Your task to perform on an android device: turn on javascript in the chrome app Image 0: 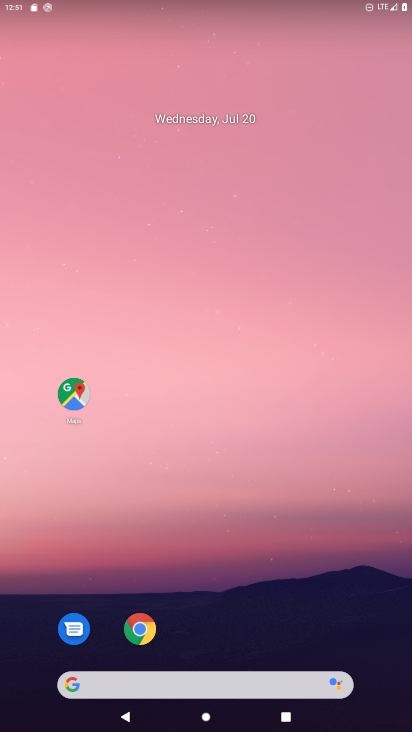
Step 0: click (143, 631)
Your task to perform on an android device: turn on javascript in the chrome app Image 1: 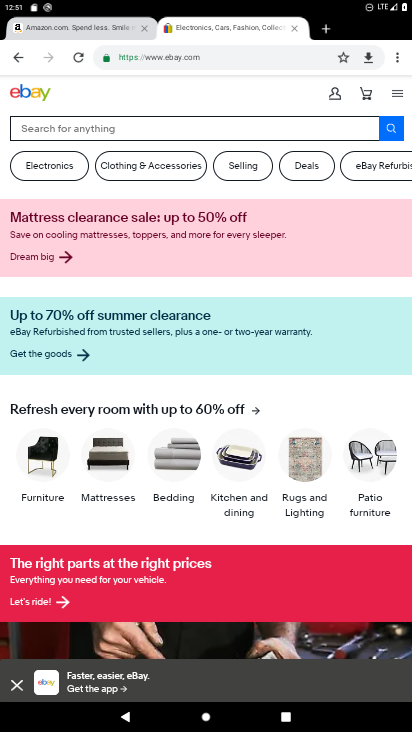
Step 1: click (399, 56)
Your task to perform on an android device: turn on javascript in the chrome app Image 2: 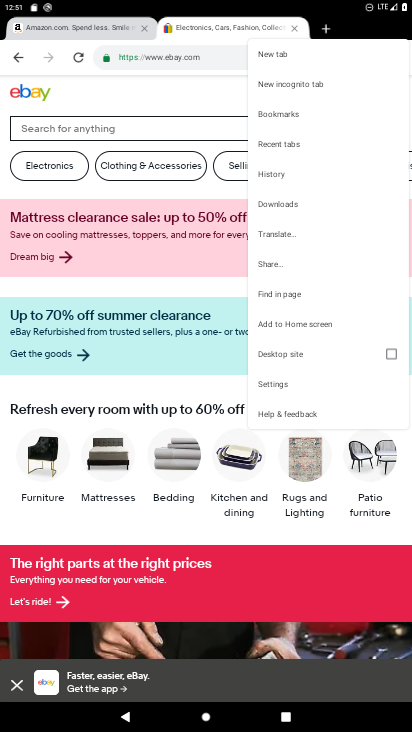
Step 2: click (277, 385)
Your task to perform on an android device: turn on javascript in the chrome app Image 3: 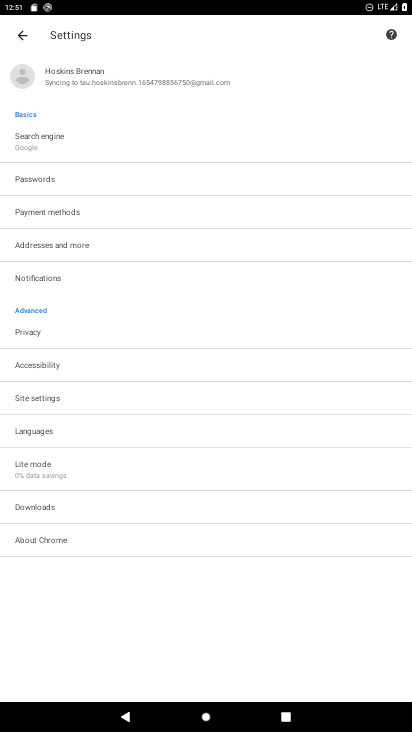
Step 3: click (43, 390)
Your task to perform on an android device: turn on javascript in the chrome app Image 4: 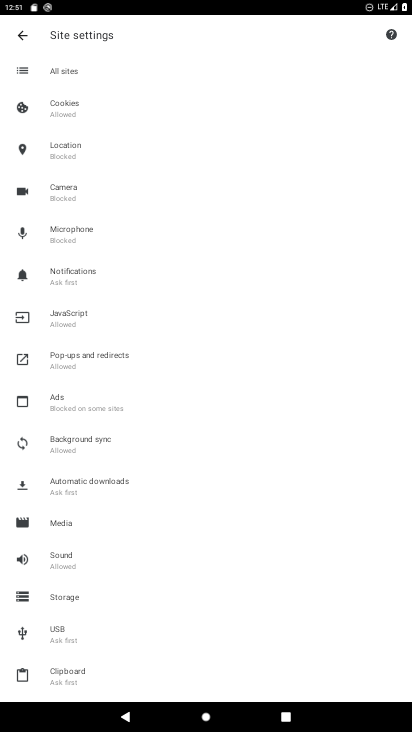
Step 4: click (81, 312)
Your task to perform on an android device: turn on javascript in the chrome app Image 5: 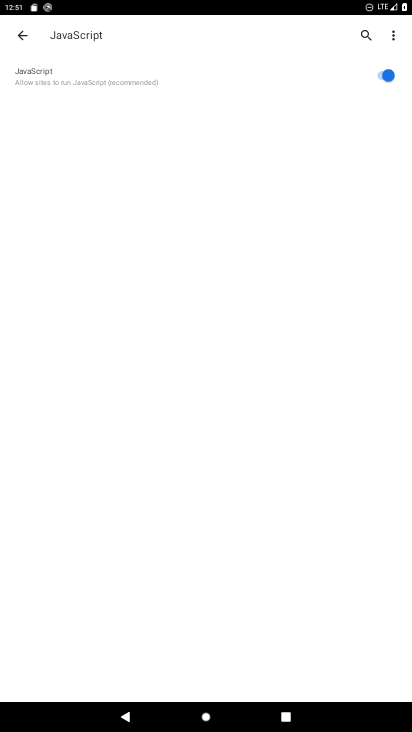
Step 5: task complete